Your task to perform on an android device: turn off priority inbox in the gmail app Image 0: 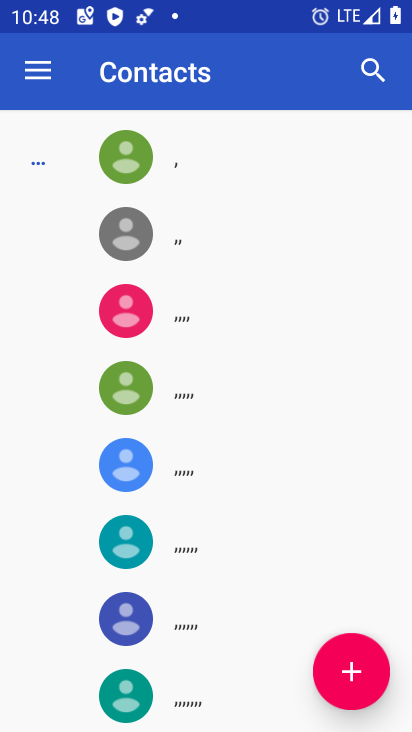
Step 0: press home button
Your task to perform on an android device: turn off priority inbox in the gmail app Image 1: 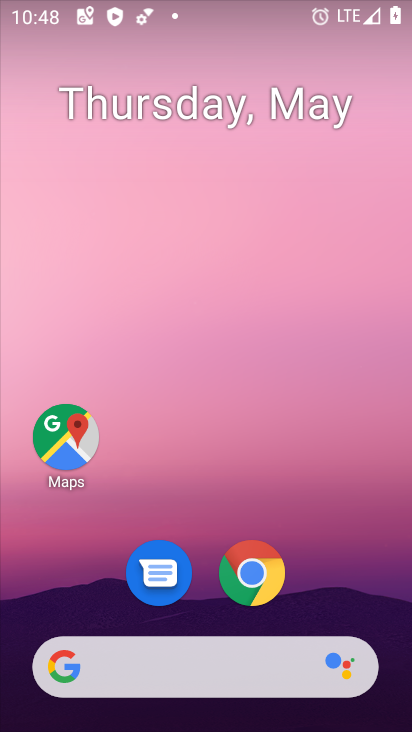
Step 1: drag from (204, 621) to (182, 152)
Your task to perform on an android device: turn off priority inbox in the gmail app Image 2: 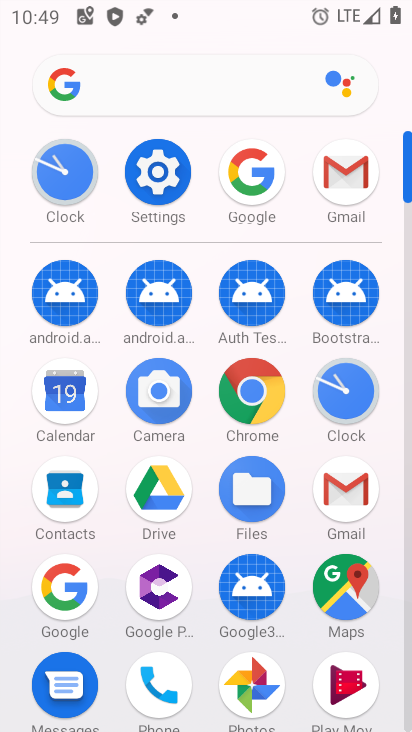
Step 2: click (325, 181)
Your task to perform on an android device: turn off priority inbox in the gmail app Image 3: 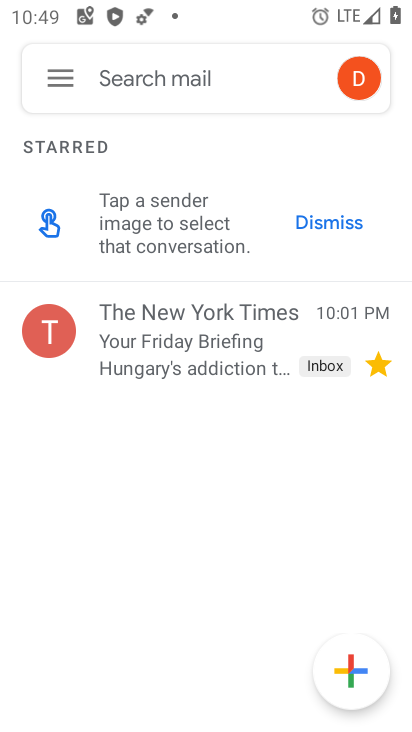
Step 3: click (74, 79)
Your task to perform on an android device: turn off priority inbox in the gmail app Image 4: 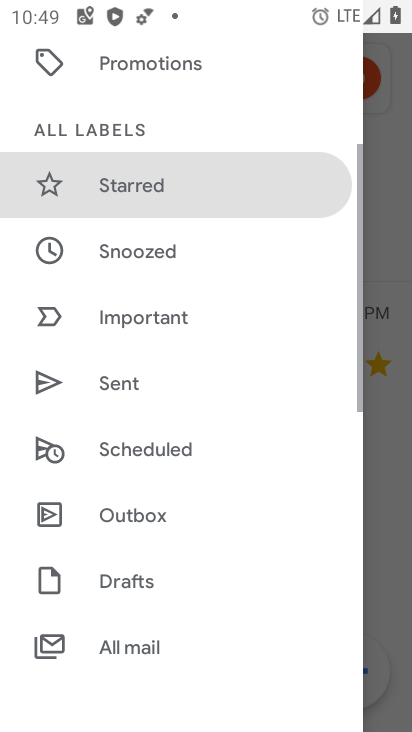
Step 4: drag from (149, 614) to (169, 312)
Your task to perform on an android device: turn off priority inbox in the gmail app Image 5: 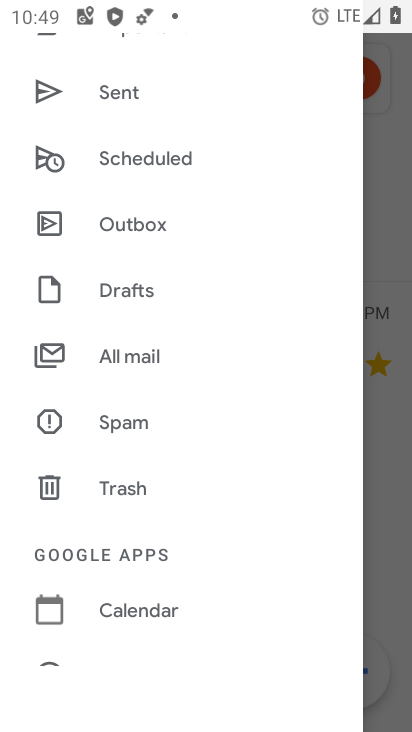
Step 5: drag from (126, 619) to (158, 329)
Your task to perform on an android device: turn off priority inbox in the gmail app Image 6: 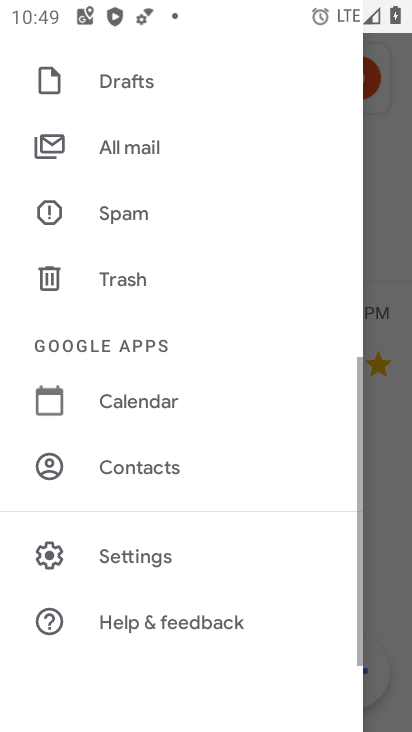
Step 6: click (146, 559)
Your task to perform on an android device: turn off priority inbox in the gmail app Image 7: 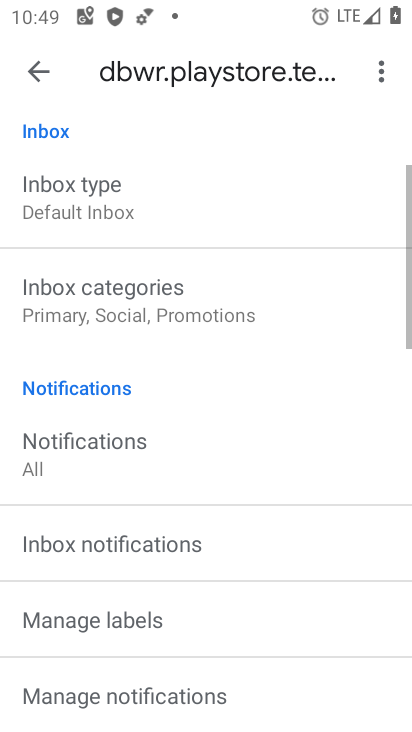
Step 7: drag from (162, 565) to (202, 311)
Your task to perform on an android device: turn off priority inbox in the gmail app Image 8: 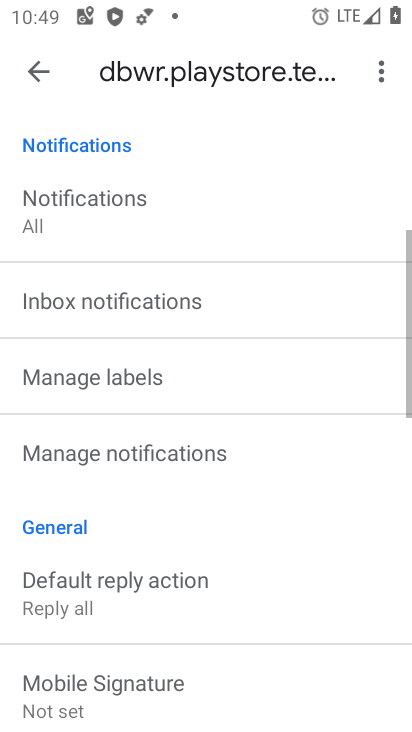
Step 8: drag from (187, 557) to (199, 374)
Your task to perform on an android device: turn off priority inbox in the gmail app Image 9: 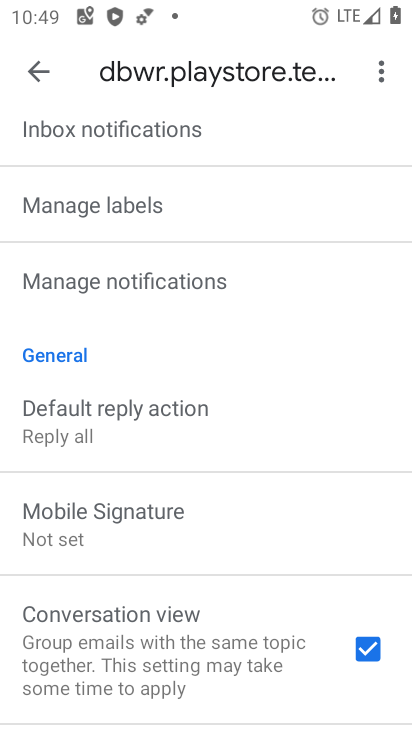
Step 9: drag from (174, 577) to (210, 249)
Your task to perform on an android device: turn off priority inbox in the gmail app Image 10: 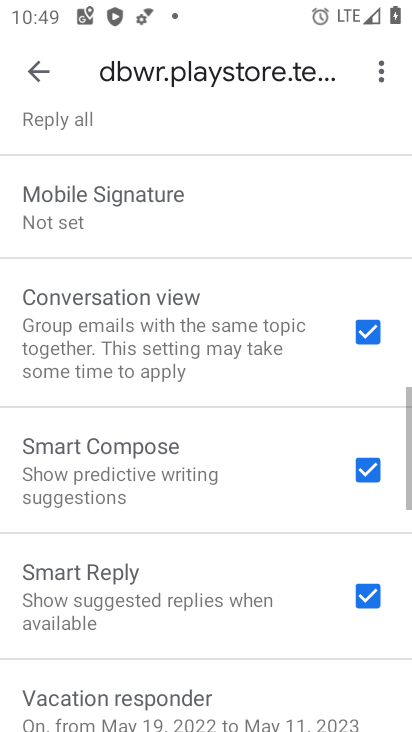
Step 10: drag from (201, 572) to (207, 286)
Your task to perform on an android device: turn off priority inbox in the gmail app Image 11: 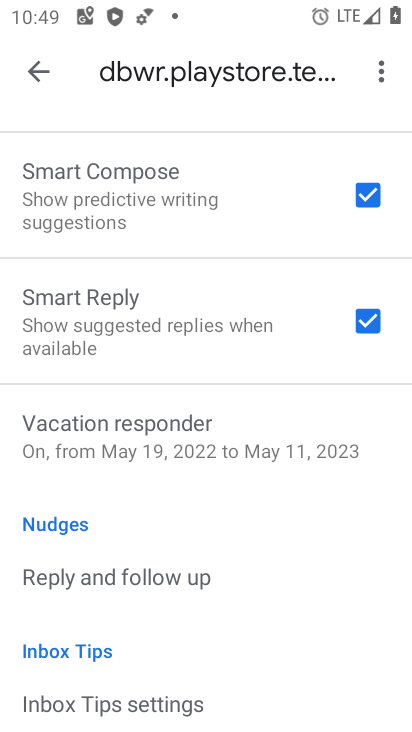
Step 11: drag from (191, 588) to (206, 254)
Your task to perform on an android device: turn off priority inbox in the gmail app Image 12: 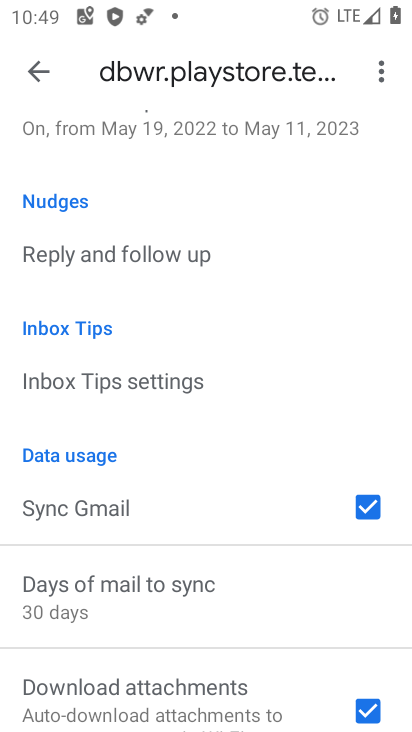
Step 12: drag from (211, 252) to (207, 502)
Your task to perform on an android device: turn off priority inbox in the gmail app Image 13: 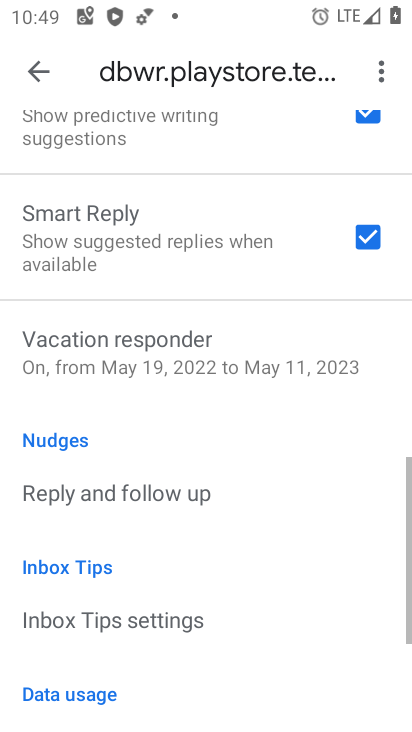
Step 13: drag from (163, 187) to (163, 442)
Your task to perform on an android device: turn off priority inbox in the gmail app Image 14: 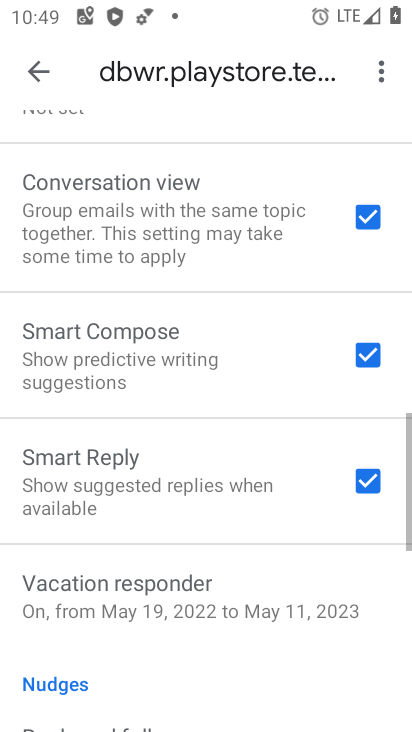
Step 14: drag from (170, 174) to (170, 470)
Your task to perform on an android device: turn off priority inbox in the gmail app Image 15: 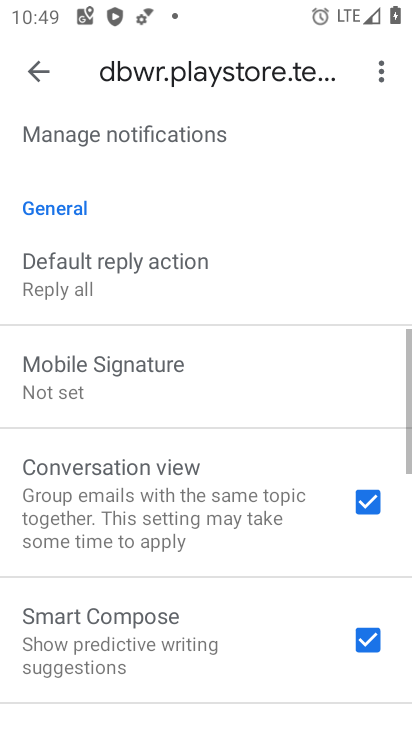
Step 15: drag from (176, 204) to (185, 449)
Your task to perform on an android device: turn off priority inbox in the gmail app Image 16: 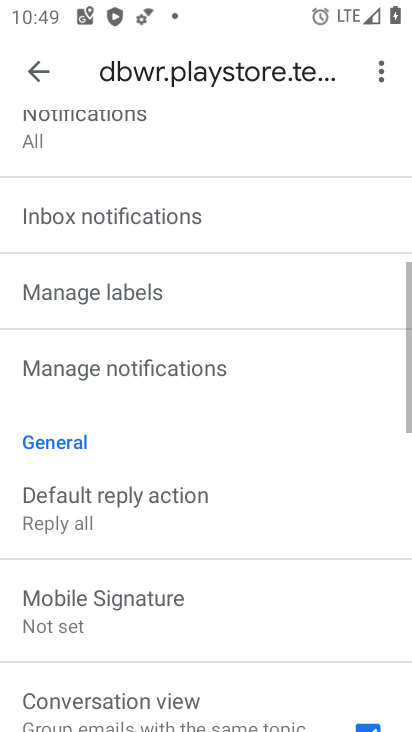
Step 16: drag from (196, 207) to (196, 463)
Your task to perform on an android device: turn off priority inbox in the gmail app Image 17: 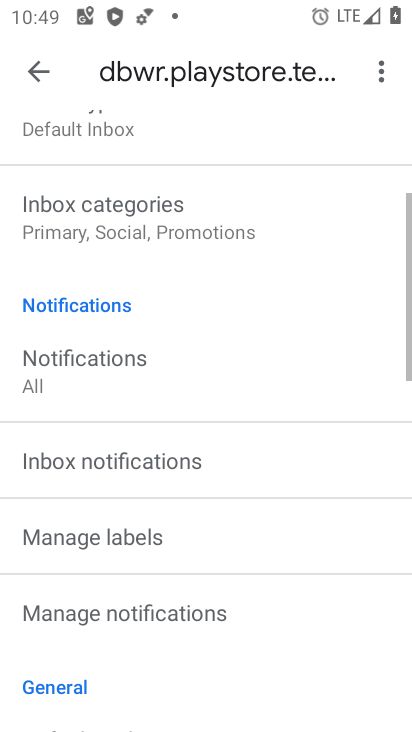
Step 17: drag from (210, 209) to (207, 430)
Your task to perform on an android device: turn off priority inbox in the gmail app Image 18: 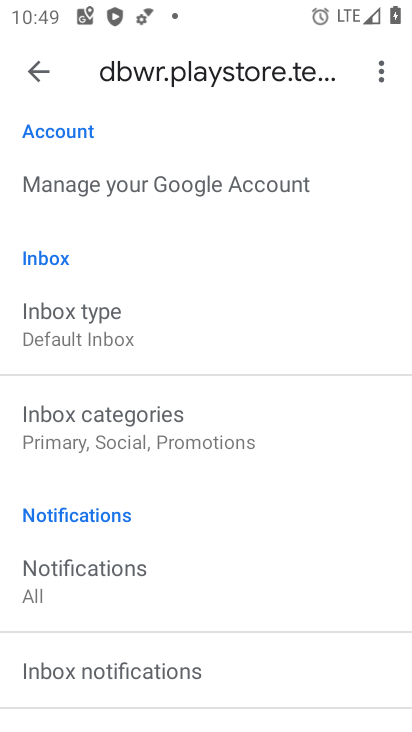
Step 18: click (121, 319)
Your task to perform on an android device: turn off priority inbox in the gmail app Image 19: 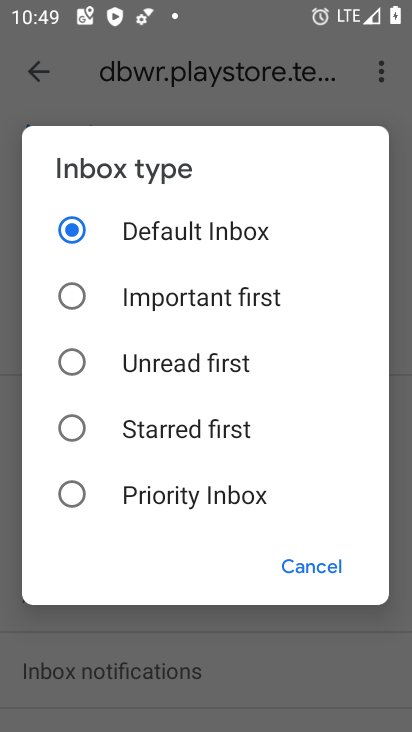
Step 19: task complete